Your task to perform on an android device: turn on location history Image 0: 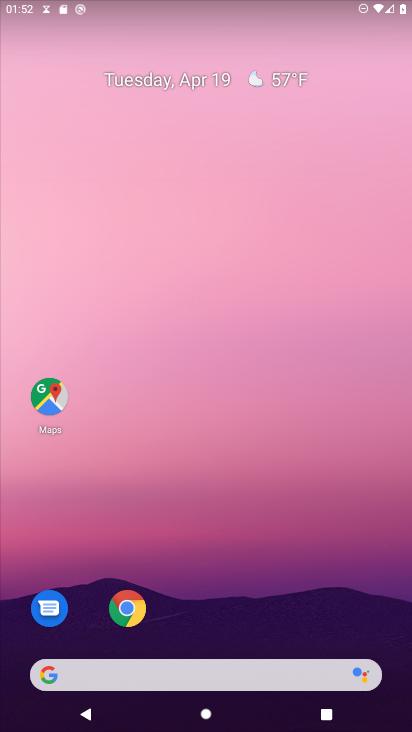
Step 0: drag from (198, 509) to (90, 130)
Your task to perform on an android device: turn on location history Image 1: 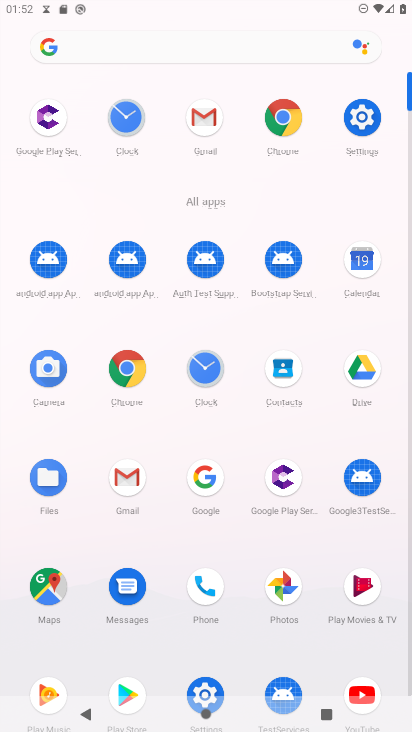
Step 1: click (375, 120)
Your task to perform on an android device: turn on location history Image 2: 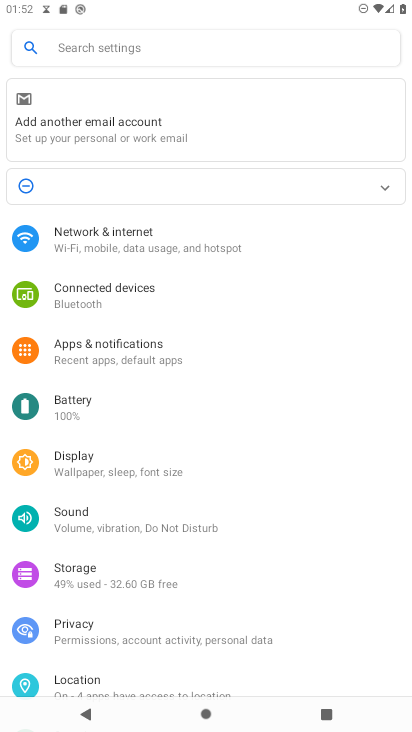
Step 2: click (114, 679)
Your task to perform on an android device: turn on location history Image 3: 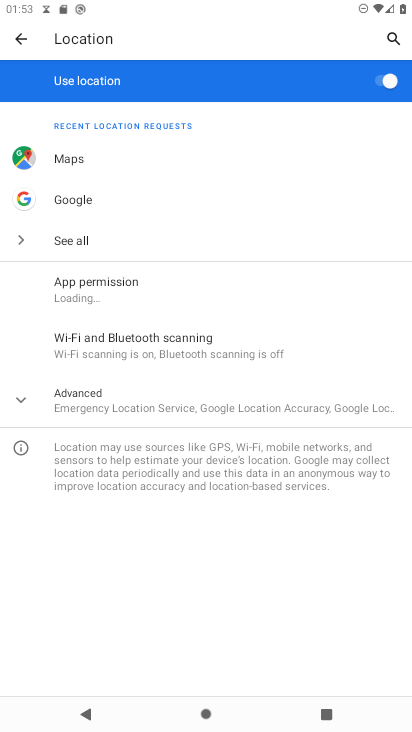
Step 3: click (106, 393)
Your task to perform on an android device: turn on location history Image 4: 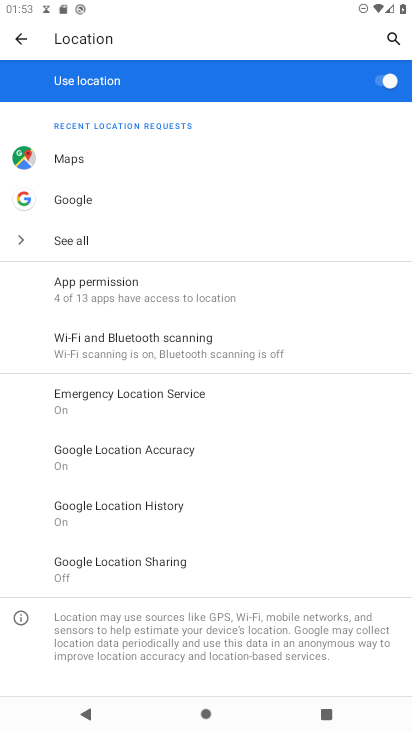
Step 4: task complete